Your task to perform on an android device: Search for "macbook pro 15 inch" on costco, select the first entry, and add it to the cart. Image 0: 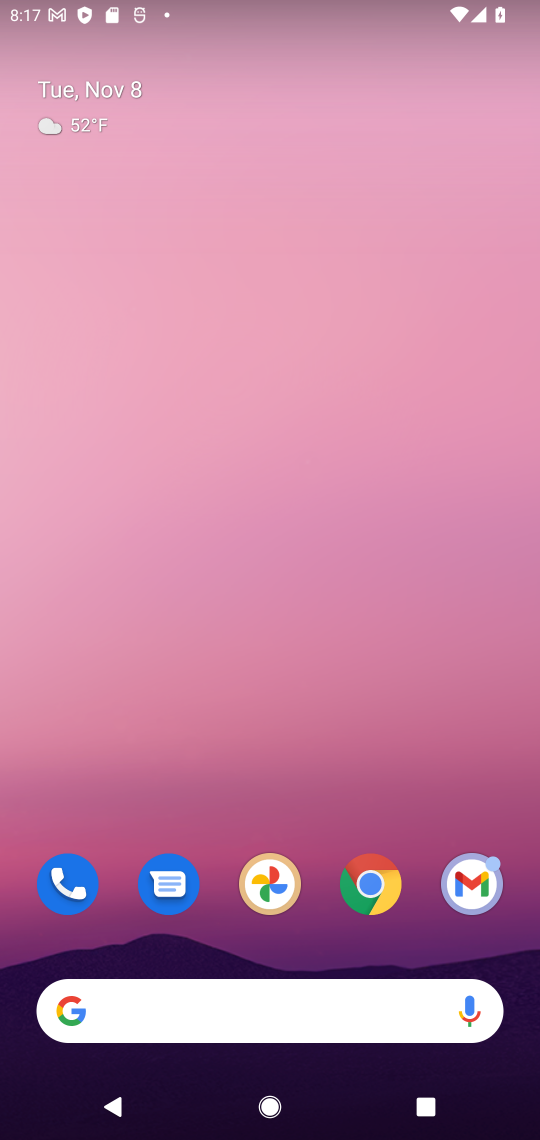
Step 0: drag from (214, 953) to (381, 17)
Your task to perform on an android device: Search for "macbook pro 15 inch" on costco, select the first entry, and add it to the cart. Image 1: 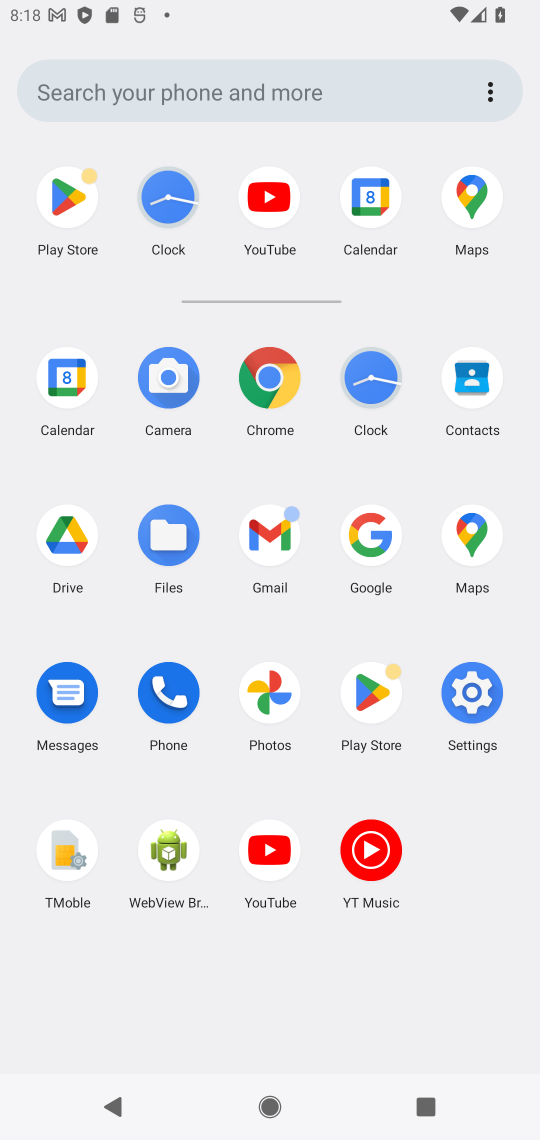
Step 1: click (383, 537)
Your task to perform on an android device: Search for "macbook pro 15 inch" on costco, select the first entry, and add it to the cart. Image 2: 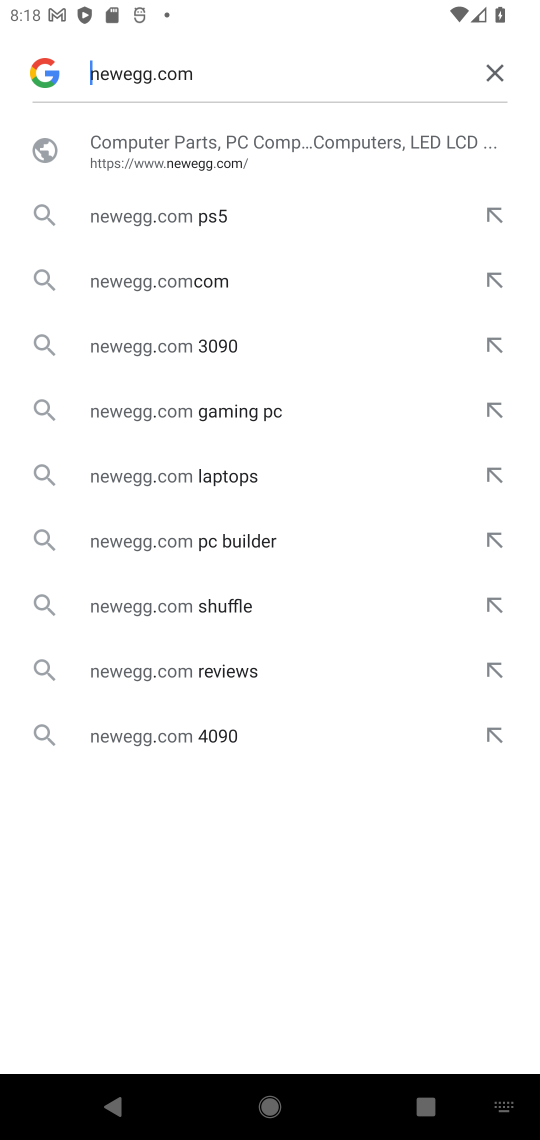
Step 2: click (498, 74)
Your task to perform on an android device: Search for "macbook pro 15 inch" on costco, select the first entry, and add it to the cart. Image 3: 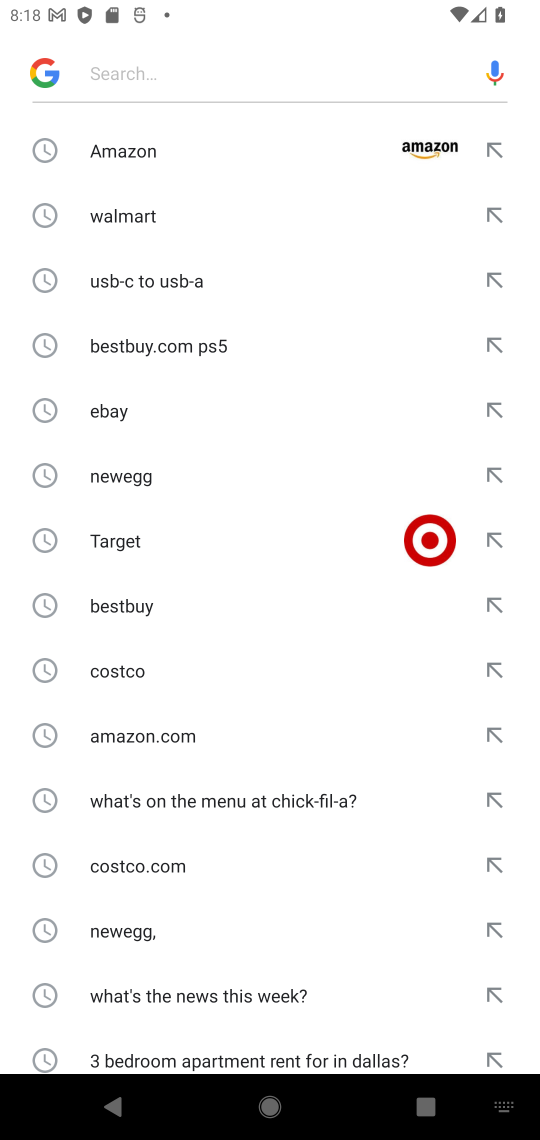
Step 3: click (206, 667)
Your task to perform on an android device: Search for "macbook pro 15 inch" on costco, select the first entry, and add it to the cart. Image 4: 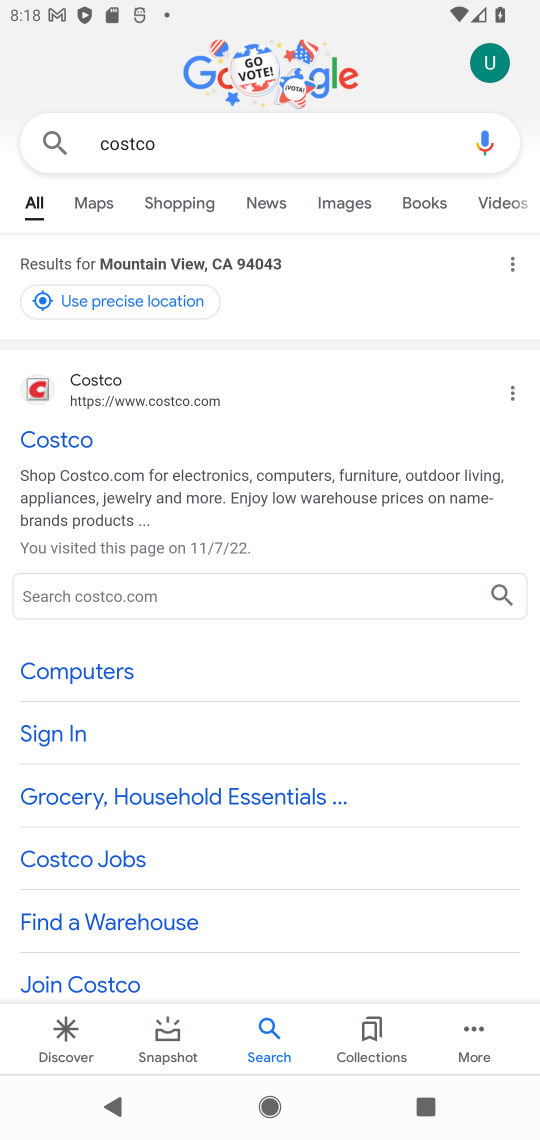
Step 4: click (66, 445)
Your task to perform on an android device: Search for "macbook pro 15 inch" on costco, select the first entry, and add it to the cart. Image 5: 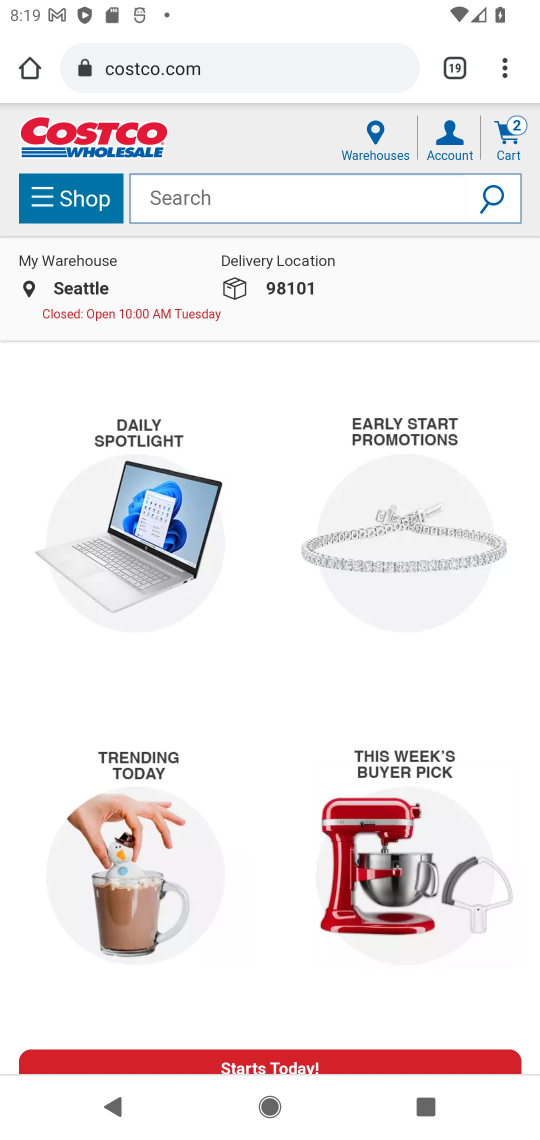
Step 5: click (226, 216)
Your task to perform on an android device: Search for "macbook pro 15 inch" on costco, select the first entry, and add it to the cart. Image 6: 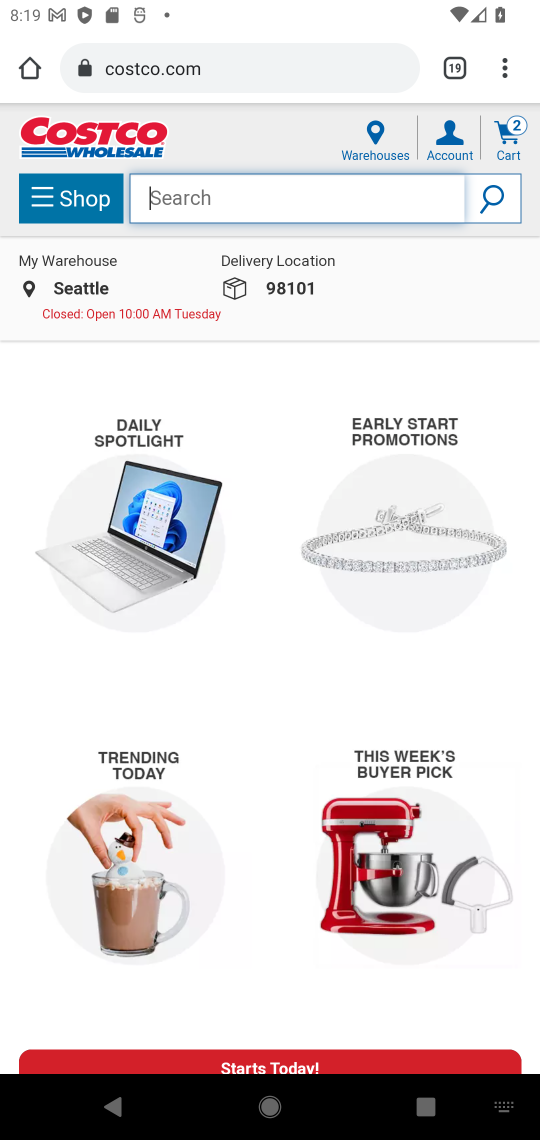
Step 6: type "macbook pro 15 inch"
Your task to perform on an android device: Search for "macbook pro 15 inch" on costco, select the first entry, and add it to the cart. Image 7: 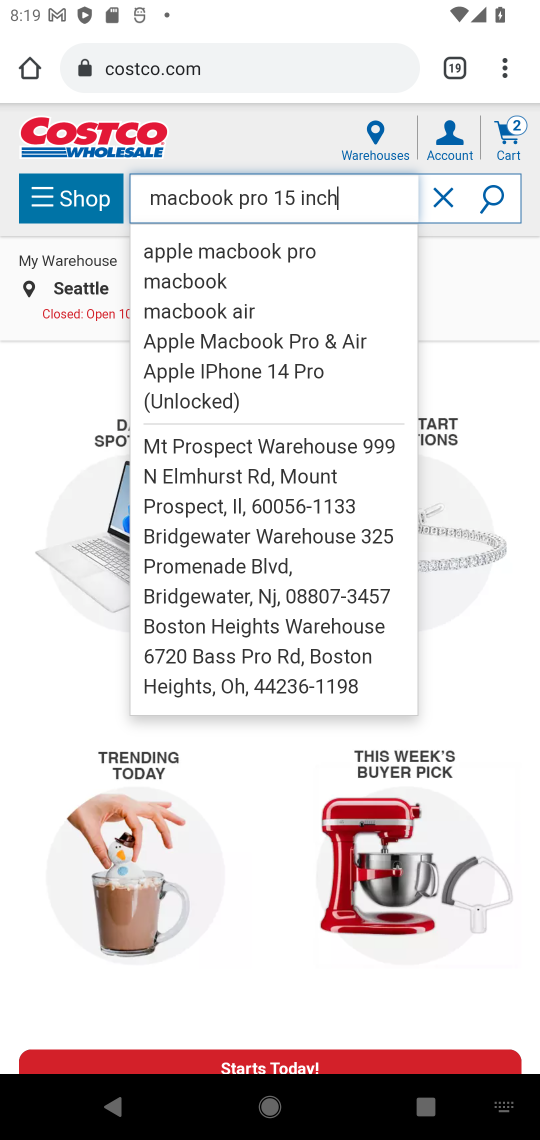
Step 7: click (494, 195)
Your task to perform on an android device: Search for "macbook pro 15 inch" on costco, select the first entry, and add it to the cart. Image 8: 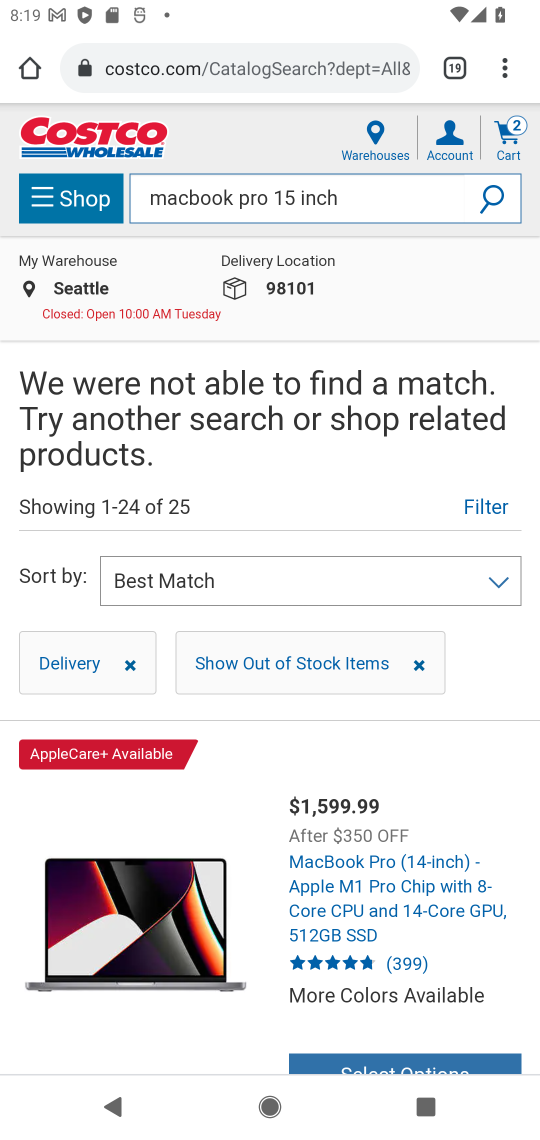
Step 8: task complete